Your task to perform on an android device: snooze an email in the gmail app Image 0: 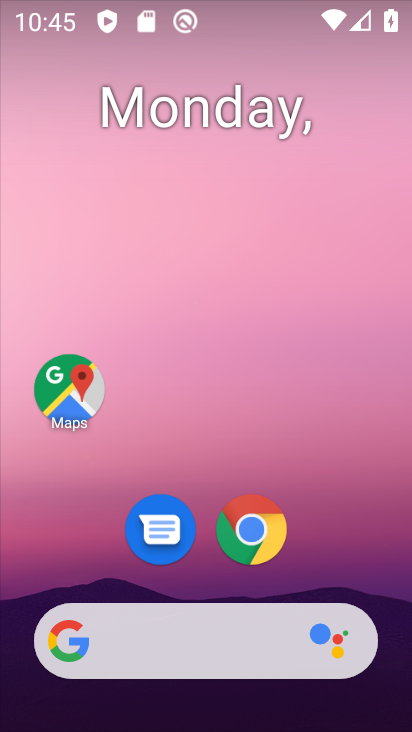
Step 0: drag from (329, 507) to (275, 95)
Your task to perform on an android device: snooze an email in the gmail app Image 1: 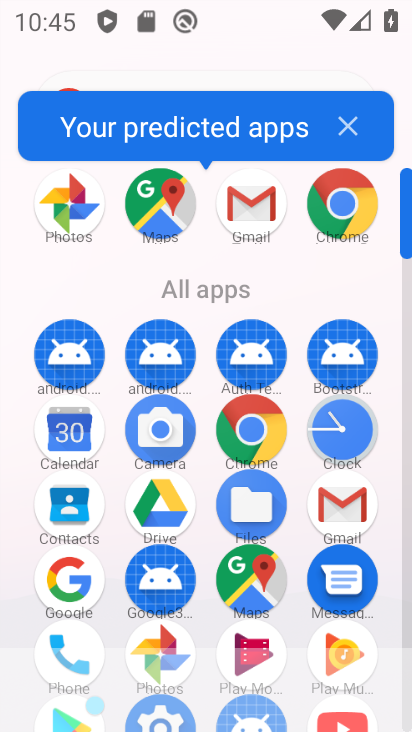
Step 1: drag from (204, 556) to (219, 289)
Your task to perform on an android device: snooze an email in the gmail app Image 2: 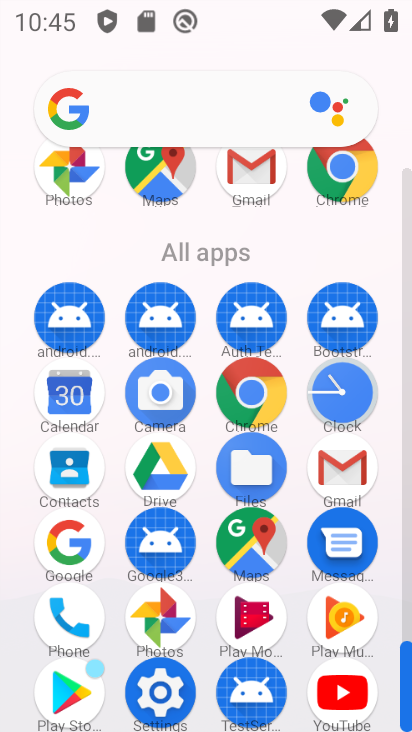
Step 2: click (252, 167)
Your task to perform on an android device: snooze an email in the gmail app Image 3: 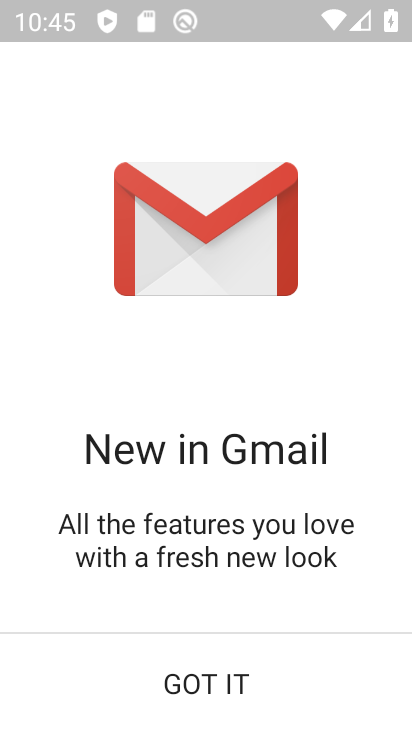
Step 3: click (200, 688)
Your task to perform on an android device: snooze an email in the gmail app Image 4: 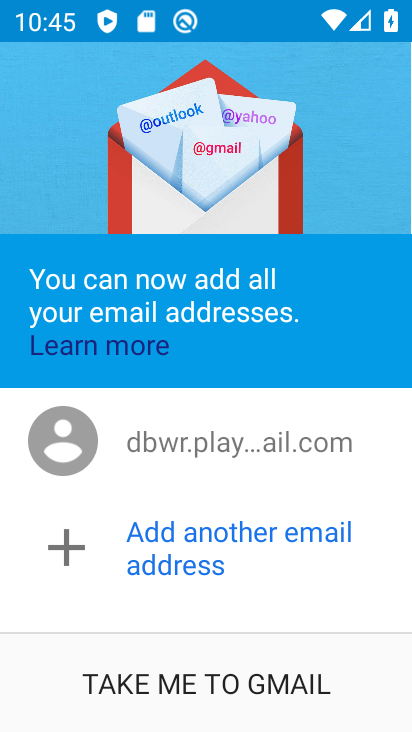
Step 4: click (200, 688)
Your task to perform on an android device: snooze an email in the gmail app Image 5: 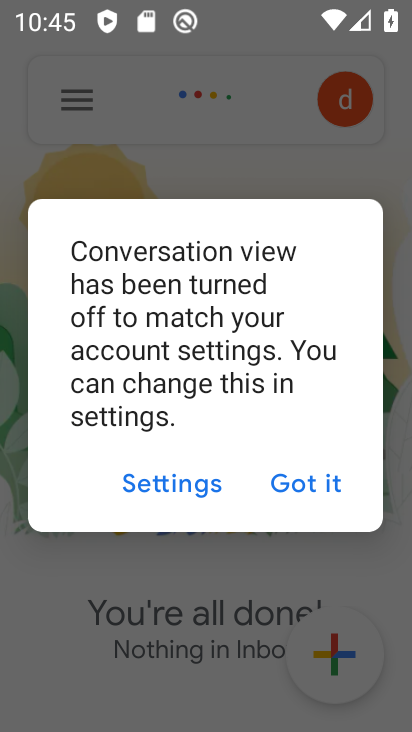
Step 5: click (306, 493)
Your task to perform on an android device: snooze an email in the gmail app Image 6: 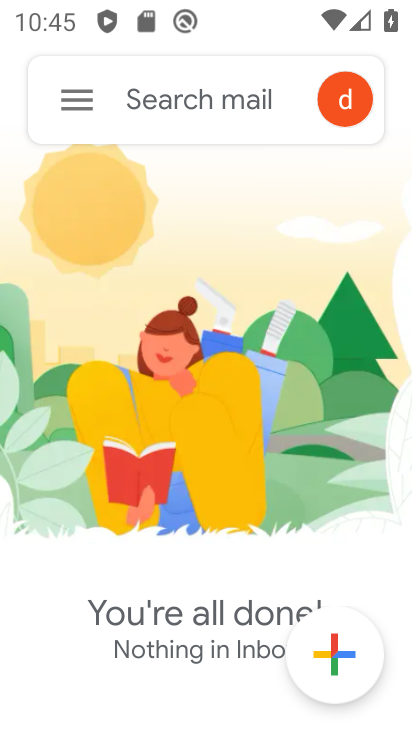
Step 6: click (79, 104)
Your task to perform on an android device: snooze an email in the gmail app Image 7: 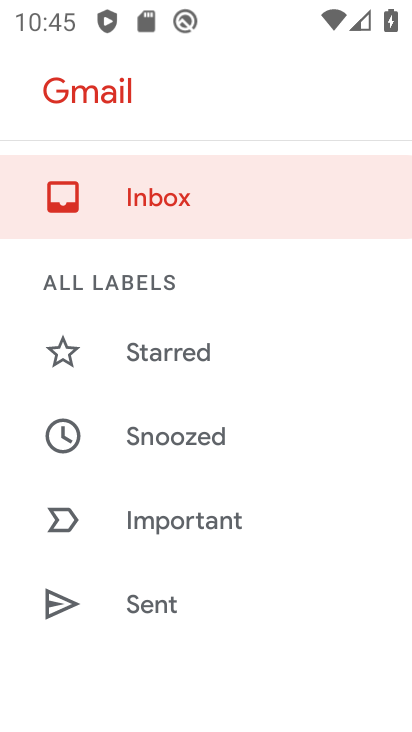
Step 7: drag from (143, 396) to (207, 305)
Your task to perform on an android device: snooze an email in the gmail app Image 8: 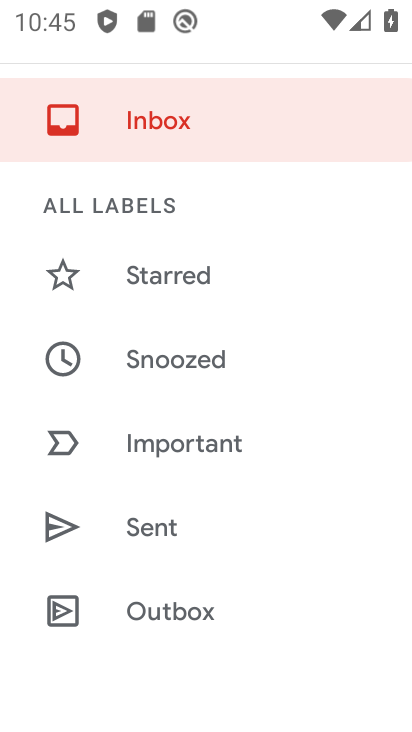
Step 8: drag from (148, 485) to (196, 402)
Your task to perform on an android device: snooze an email in the gmail app Image 9: 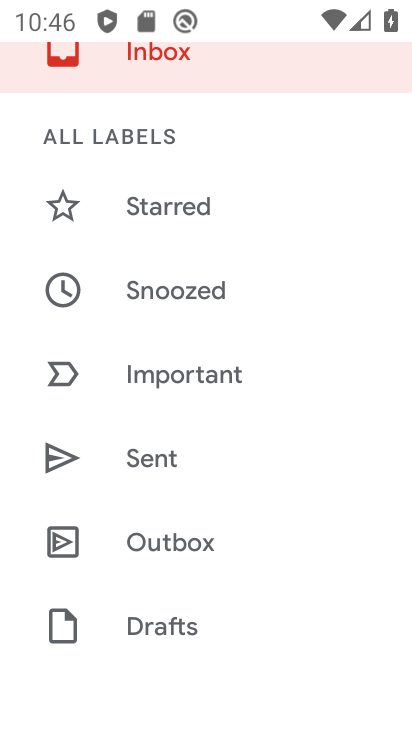
Step 9: click (210, 286)
Your task to perform on an android device: snooze an email in the gmail app Image 10: 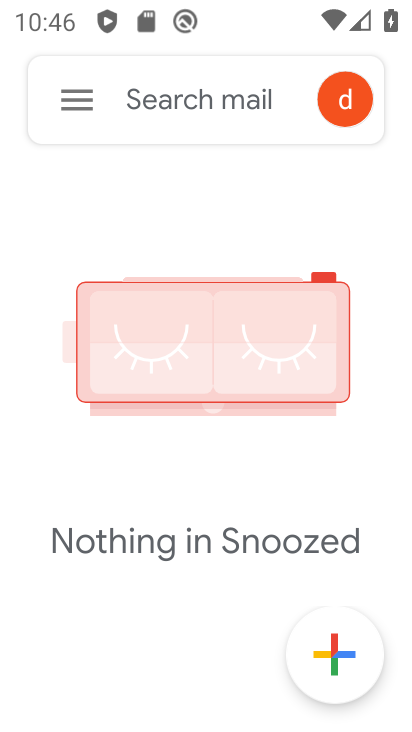
Step 10: click (79, 85)
Your task to perform on an android device: snooze an email in the gmail app Image 11: 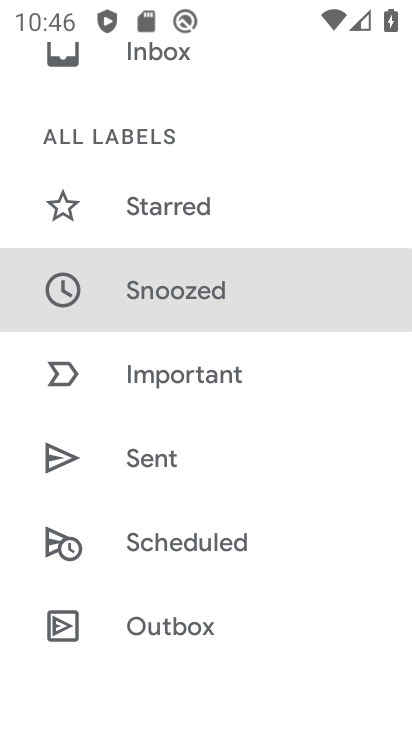
Step 11: drag from (138, 484) to (198, 414)
Your task to perform on an android device: snooze an email in the gmail app Image 12: 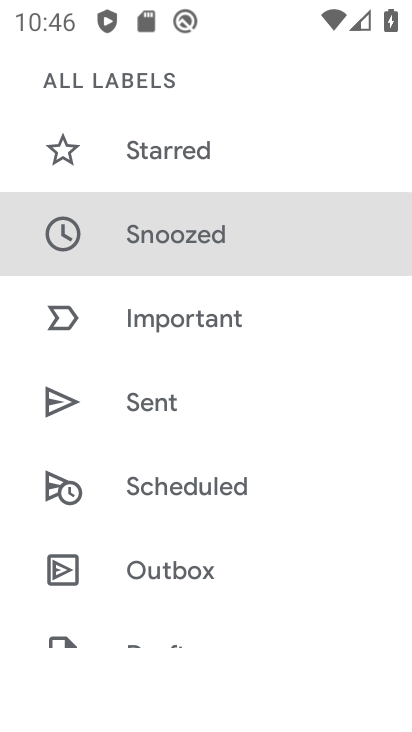
Step 12: drag from (208, 542) to (310, 435)
Your task to perform on an android device: snooze an email in the gmail app Image 13: 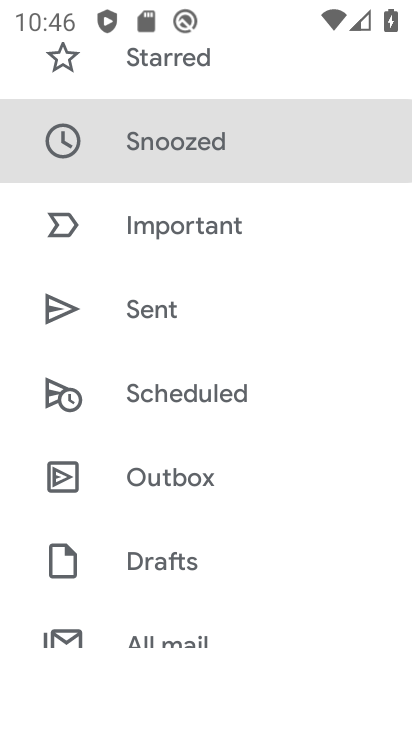
Step 13: drag from (207, 569) to (254, 519)
Your task to perform on an android device: snooze an email in the gmail app Image 14: 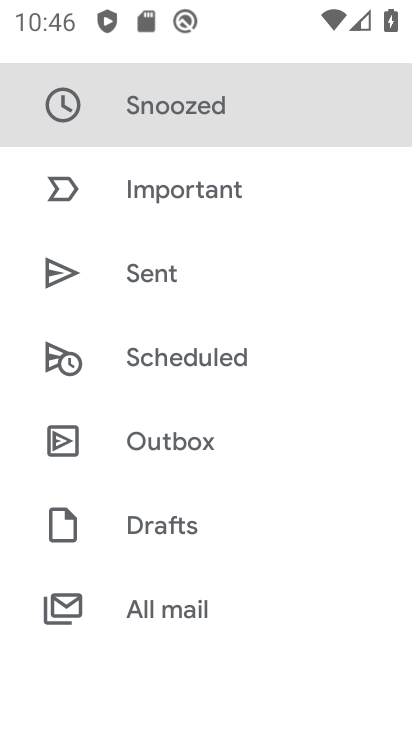
Step 14: click (192, 601)
Your task to perform on an android device: snooze an email in the gmail app Image 15: 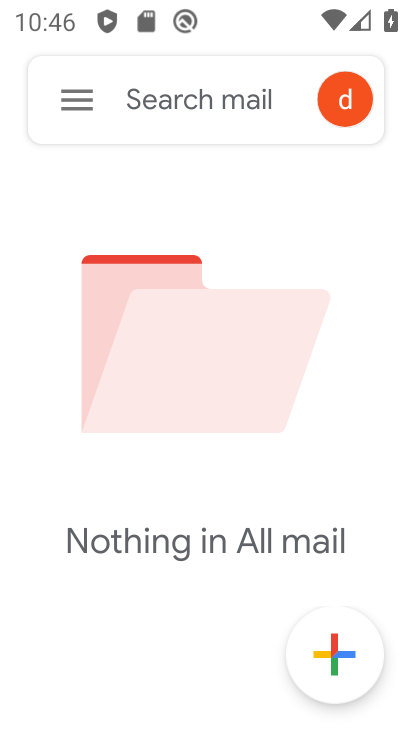
Step 15: task complete